Your task to perform on an android device: Find coffee shops on Maps Image 0: 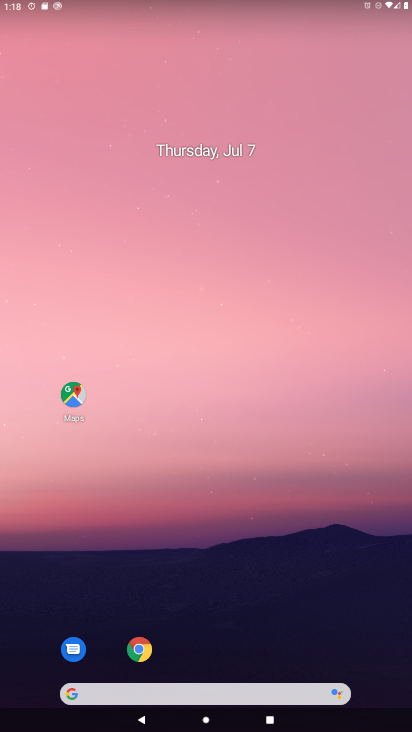
Step 0: drag from (219, 654) to (197, 132)
Your task to perform on an android device: Find coffee shops on Maps Image 1: 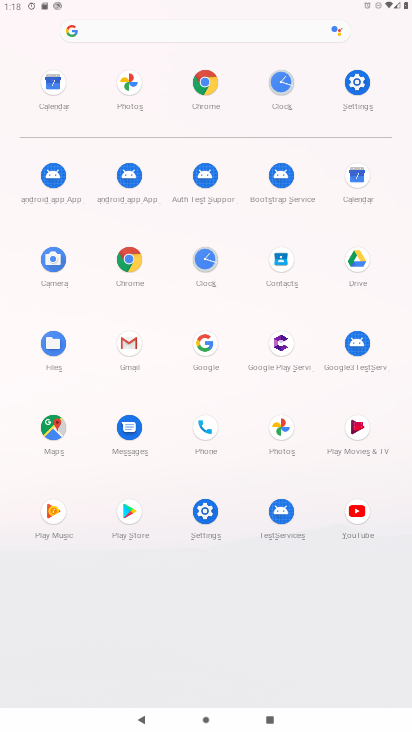
Step 1: click (56, 425)
Your task to perform on an android device: Find coffee shops on Maps Image 2: 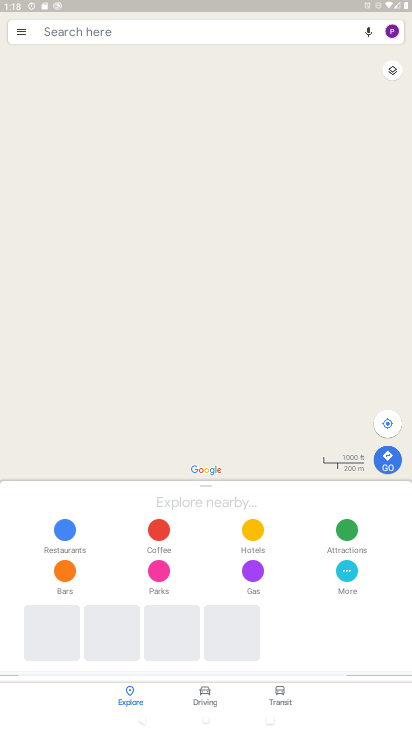
Step 2: click (120, 35)
Your task to perform on an android device: Find coffee shops on Maps Image 3: 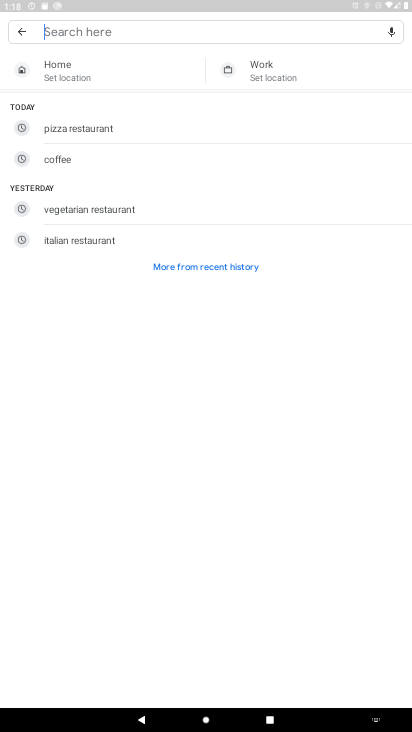
Step 3: click (117, 154)
Your task to perform on an android device: Find coffee shops on Maps Image 4: 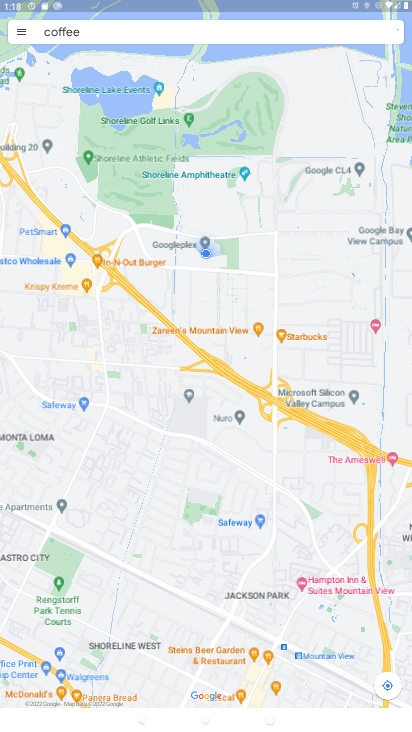
Step 4: task complete